Your task to perform on an android device: toggle sleep mode Image 0: 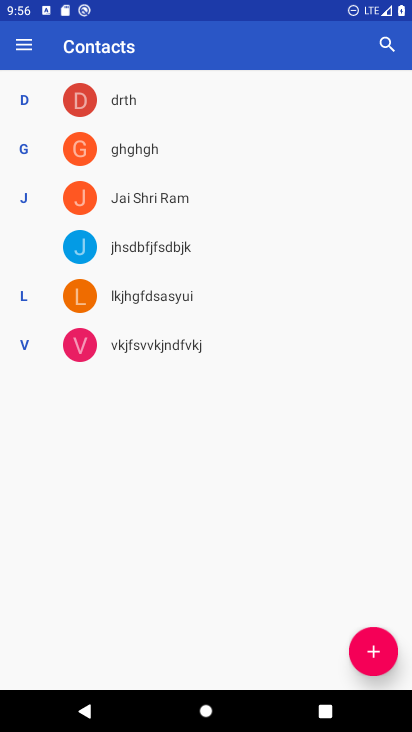
Step 0: press home button
Your task to perform on an android device: toggle sleep mode Image 1: 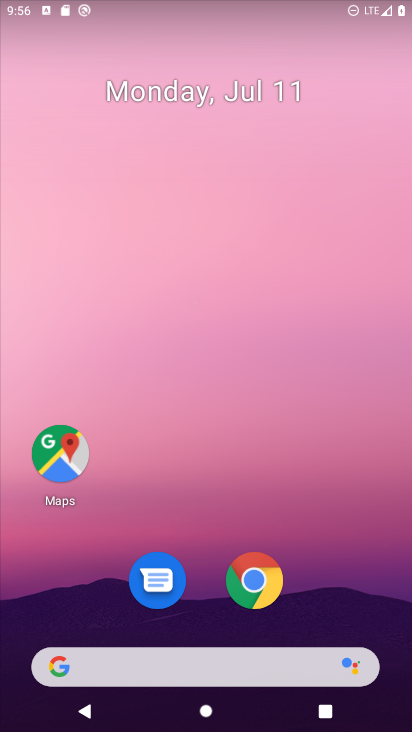
Step 1: drag from (322, 581) to (222, 43)
Your task to perform on an android device: toggle sleep mode Image 2: 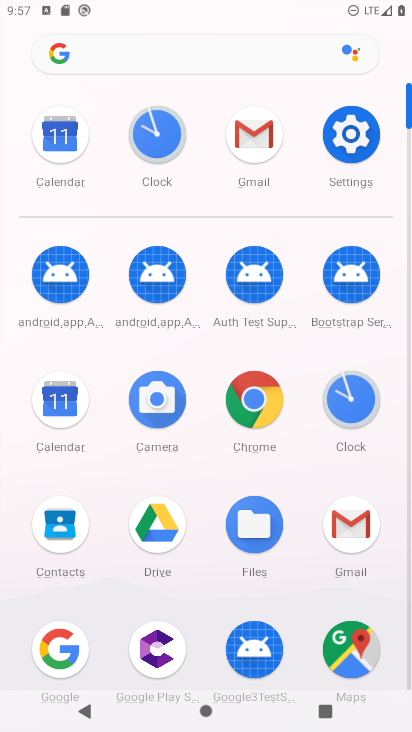
Step 2: click (343, 135)
Your task to perform on an android device: toggle sleep mode Image 3: 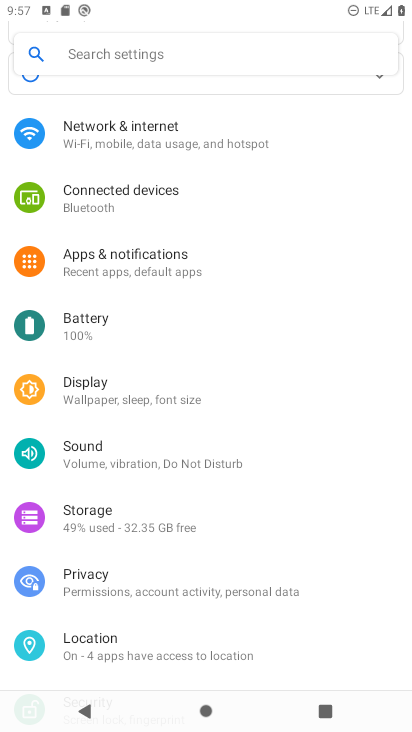
Step 3: click (154, 386)
Your task to perform on an android device: toggle sleep mode Image 4: 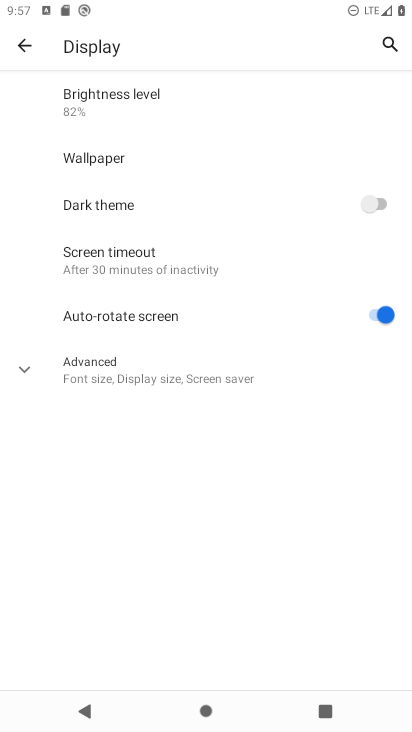
Step 4: click (24, 370)
Your task to perform on an android device: toggle sleep mode Image 5: 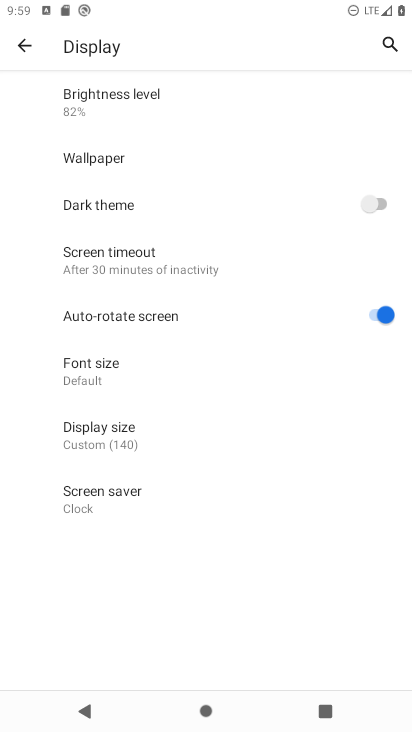
Step 5: task complete